Your task to perform on an android device: turn off priority inbox in the gmail app Image 0: 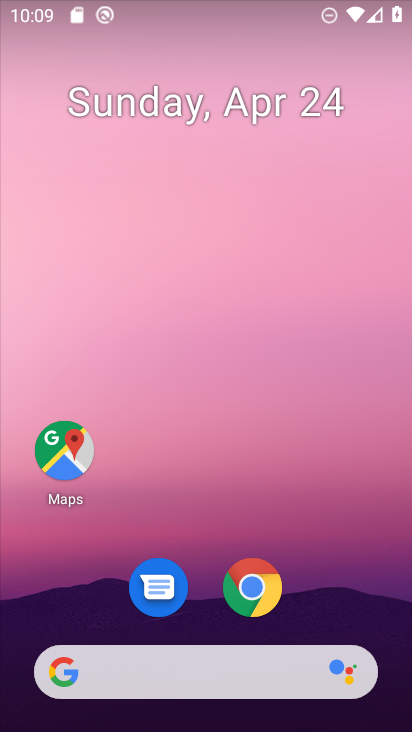
Step 0: drag from (371, 549) to (299, 46)
Your task to perform on an android device: turn off priority inbox in the gmail app Image 1: 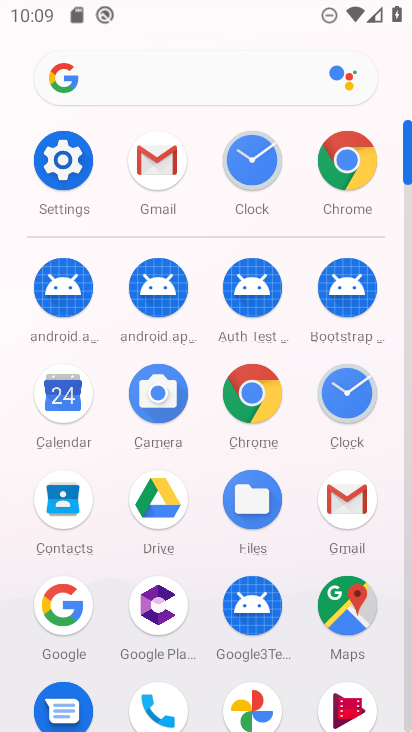
Step 1: click (350, 512)
Your task to perform on an android device: turn off priority inbox in the gmail app Image 2: 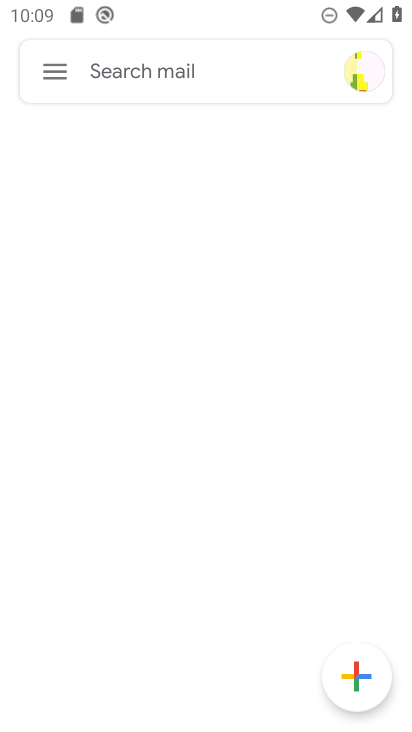
Step 2: click (54, 78)
Your task to perform on an android device: turn off priority inbox in the gmail app Image 3: 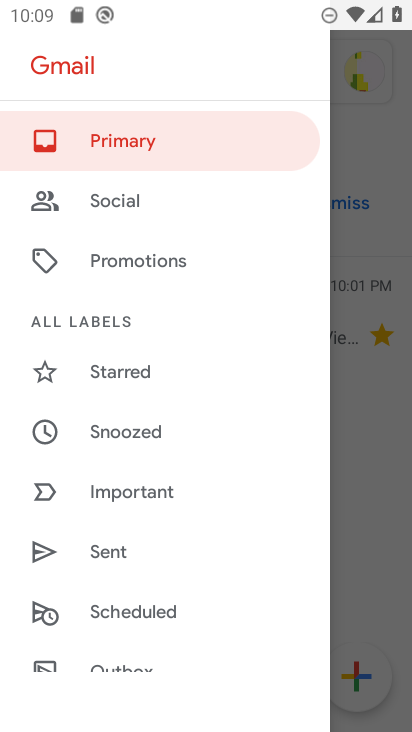
Step 3: drag from (186, 629) to (188, 363)
Your task to perform on an android device: turn off priority inbox in the gmail app Image 4: 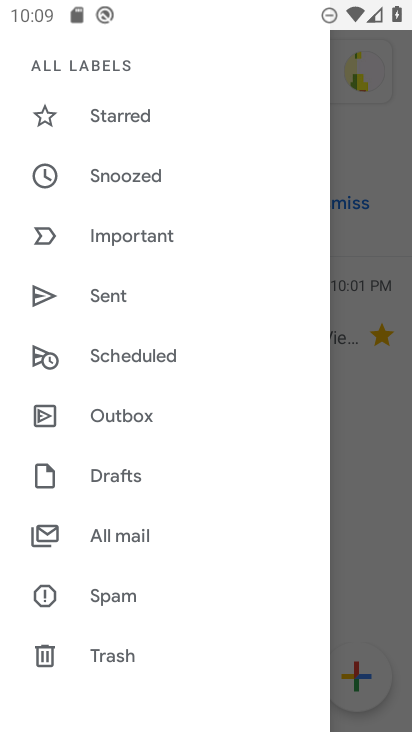
Step 4: drag from (192, 653) to (175, 294)
Your task to perform on an android device: turn off priority inbox in the gmail app Image 5: 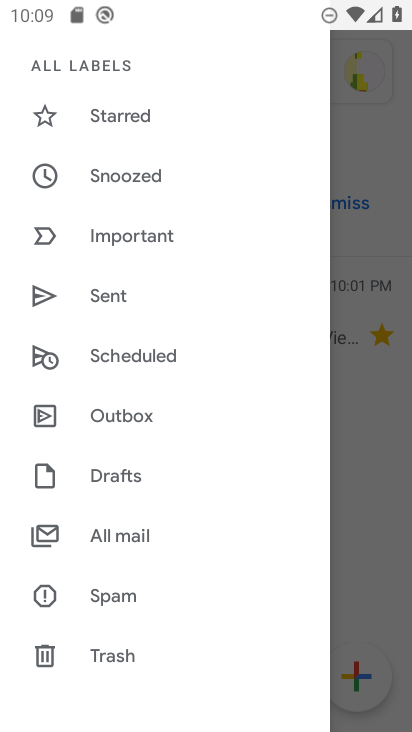
Step 5: drag from (157, 612) to (213, 289)
Your task to perform on an android device: turn off priority inbox in the gmail app Image 6: 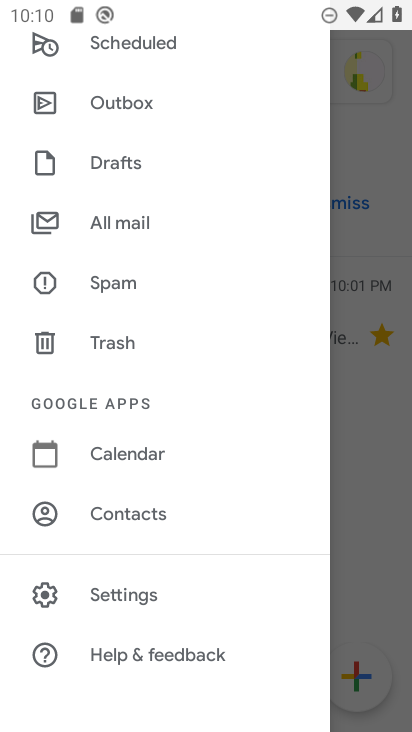
Step 6: click (119, 598)
Your task to perform on an android device: turn off priority inbox in the gmail app Image 7: 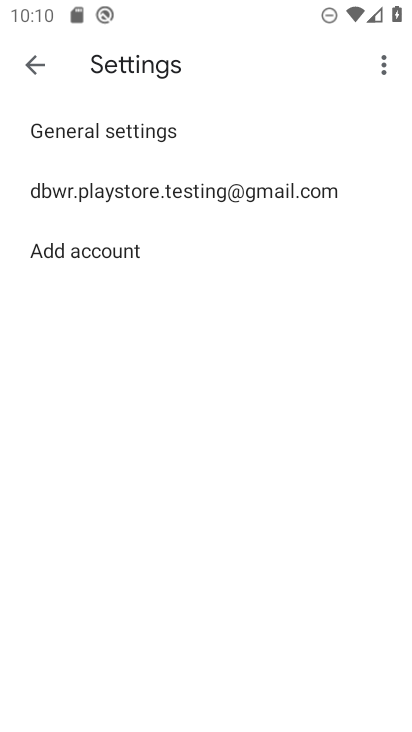
Step 7: click (107, 176)
Your task to perform on an android device: turn off priority inbox in the gmail app Image 8: 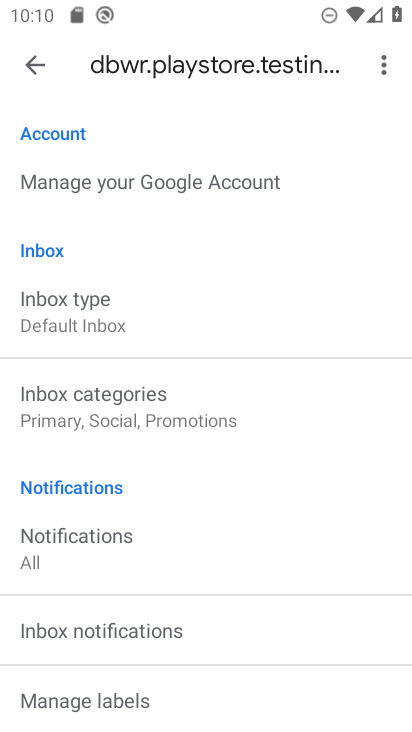
Step 8: click (108, 318)
Your task to perform on an android device: turn off priority inbox in the gmail app Image 9: 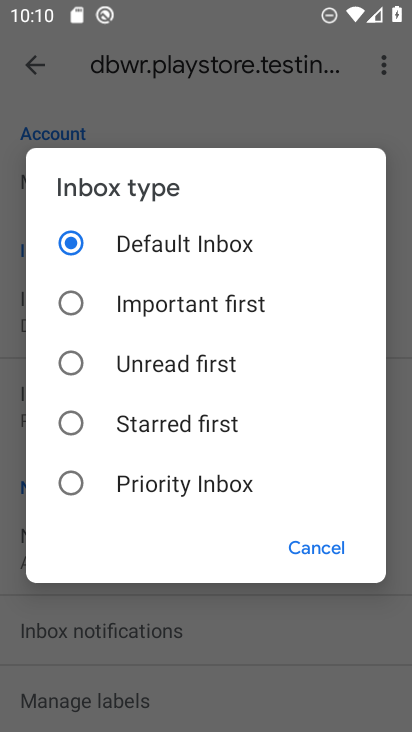
Step 9: task complete